Your task to perform on an android device: move an email to a new category in the gmail app Image 0: 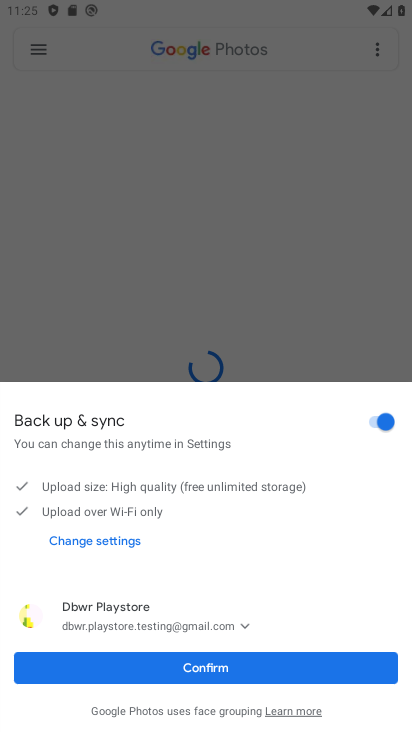
Step 0: press home button
Your task to perform on an android device: move an email to a new category in the gmail app Image 1: 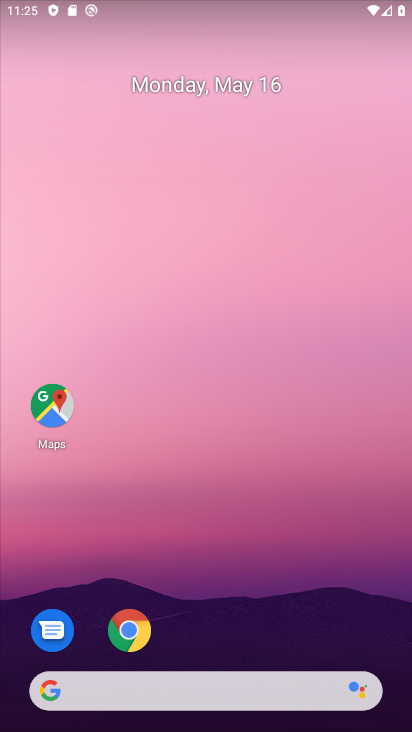
Step 1: drag from (221, 654) to (302, 196)
Your task to perform on an android device: move an email to a new category in the gmail app Image 2: 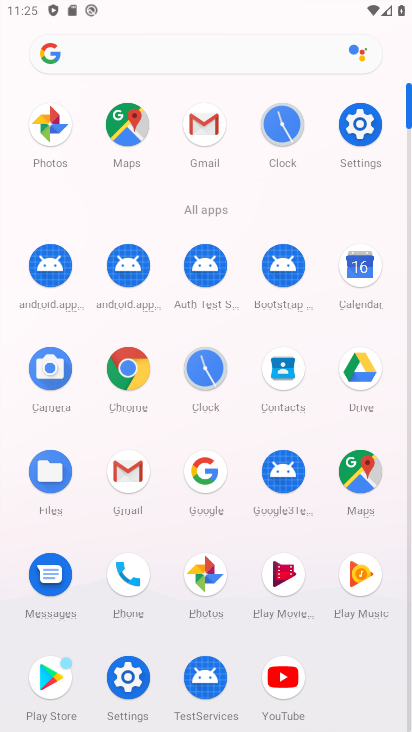
Step 2: click (127, 483)
Your task to perform on an android device: move an email to a new category in the gmail app Image 3: 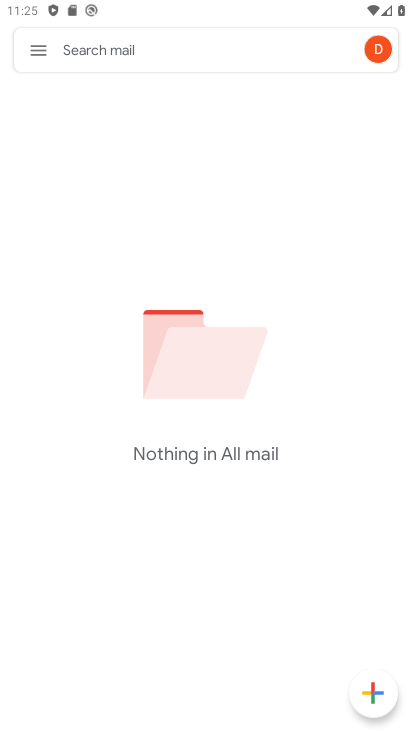
Step 3: click (32, 59)
Your task to perform on an android device: move an email to a new category in the gmail app Image 4: 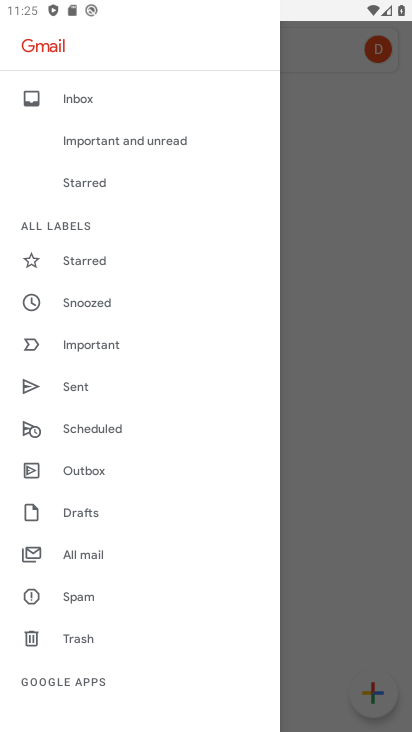
Step 4: drag from (148, 604) to (187, 418)
Your task to perform on an android device: move an email to a new category in the gmail app Image 5: 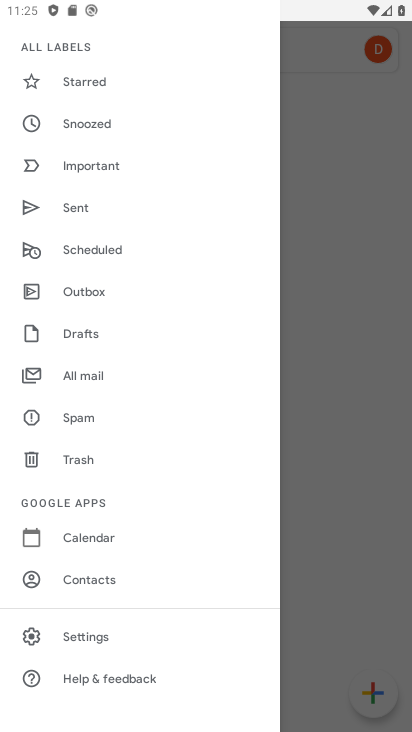
Step 5: click (154, 385)
Your task to perform on an android device: move an email to a new category in the gmail app Image 6: 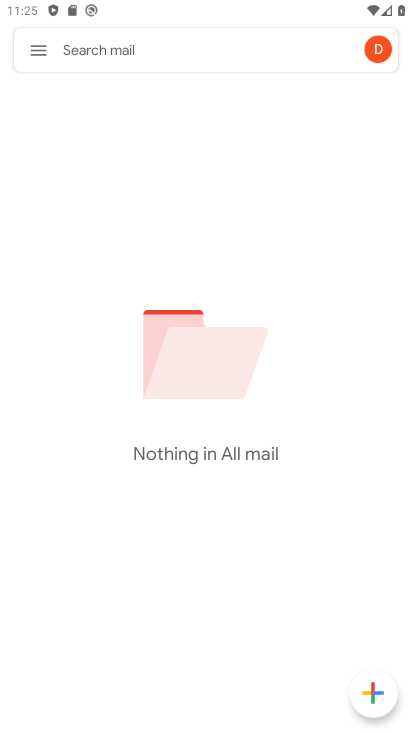
Step 6: task complete